Your task to perform on an android device: Open wifi settings Image 0: 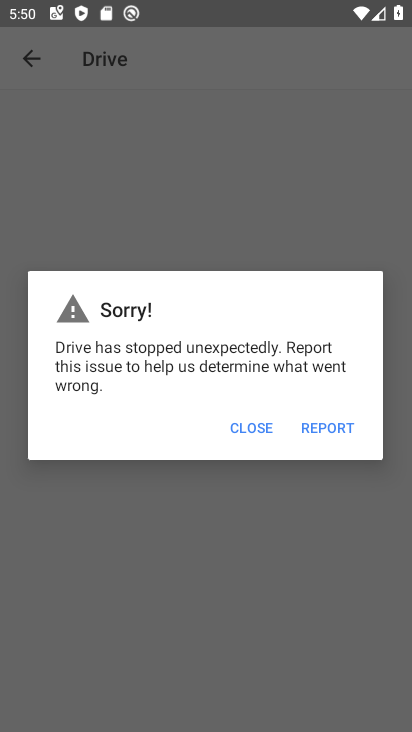
Step 0: press home button
Your task to perform on an android device: Open wifi settings Image 1: 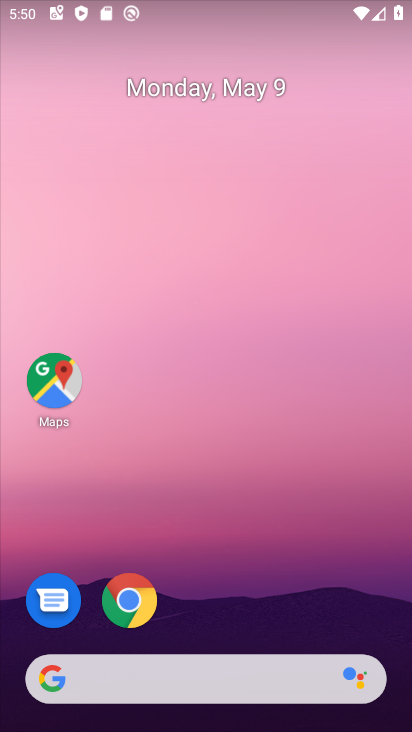
Step 1: drag from (215, 622) to (225, 82)
Your task to perform on an android device: Open wifi settings Image 2: 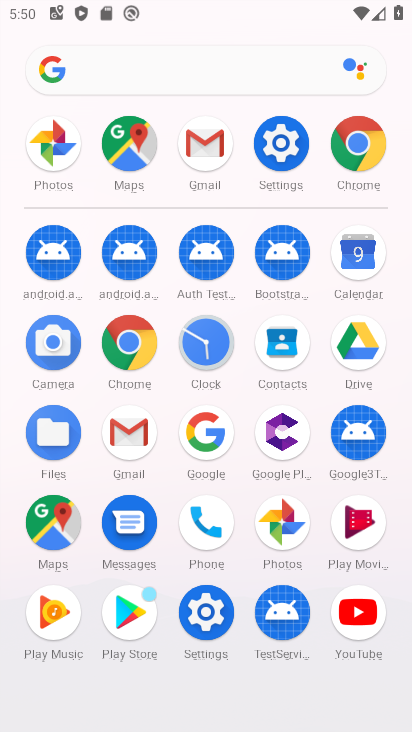
Step 2: click (265, 155)
Your task to perform on an android device: Open wifi settings Image 3: 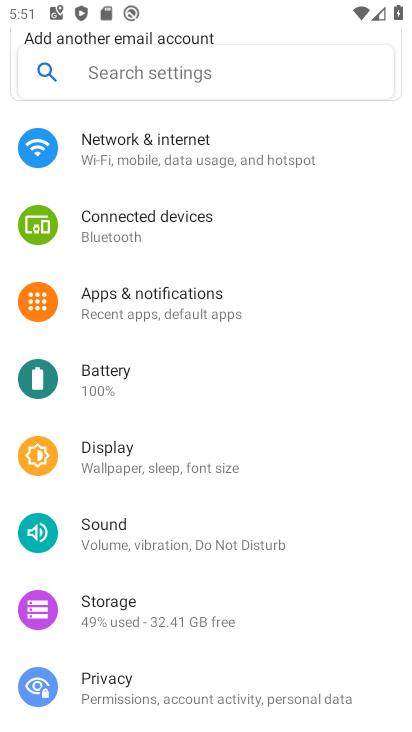
Step 3: drag from (197, 167) to (181, 529)
Your task to perform on an android device: Open wifi settings Image 4: 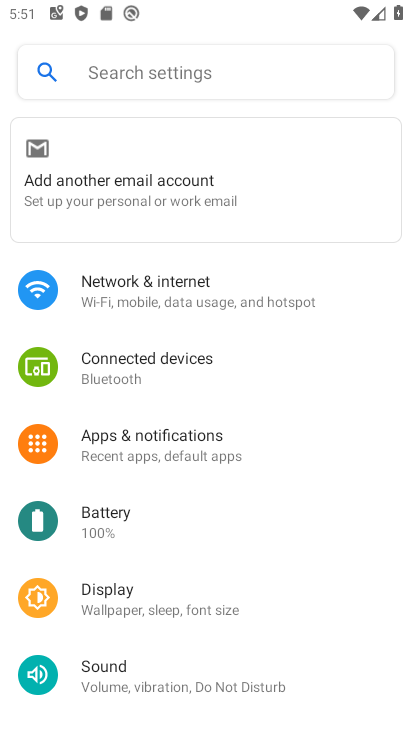
Step 4: click (178, 302)
Your task to perform on an android device: Open wifi settings Image 5: 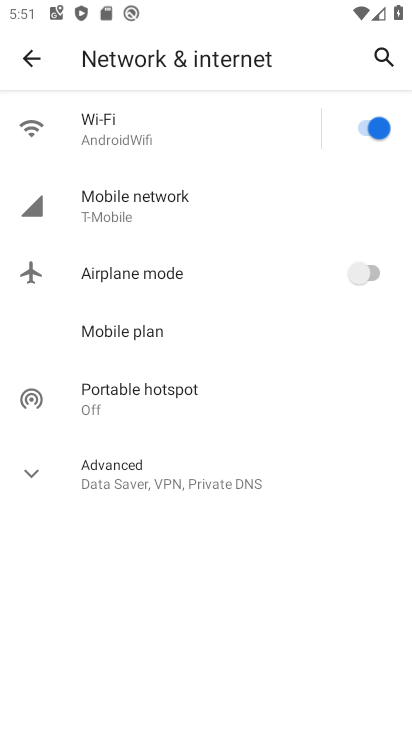
Step 5: click (147, 140)
Your task to perform on an android device: Open wifi settings Image 6: 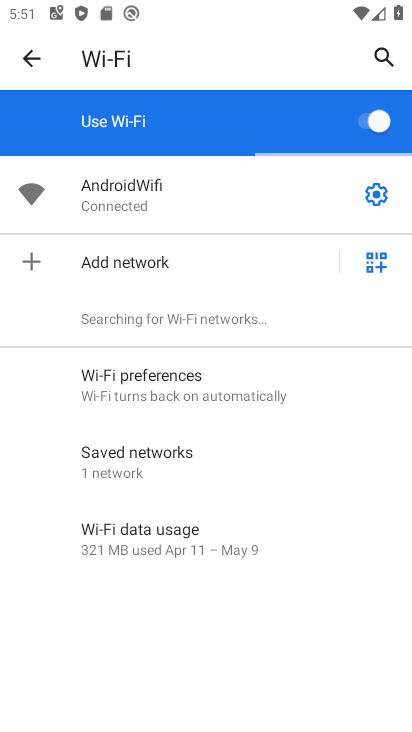
Step 6: task complete